Your task to perform on an android device: Set the phone to "Do not disturb". Image 0: 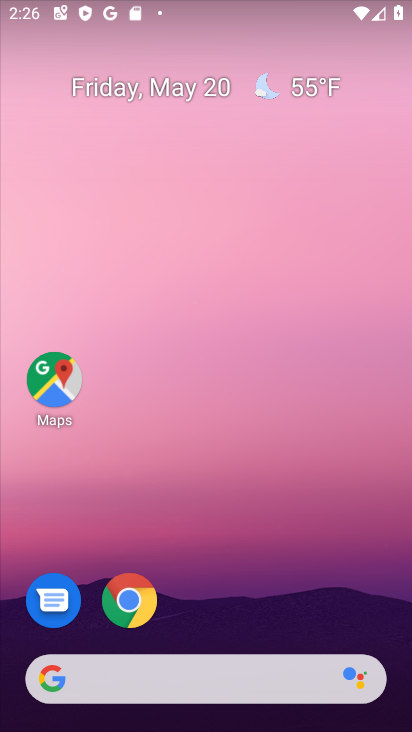
Step 0: drag from (245, 633) to (251, 95)
Your task to perform on an android device: Set the phone to "Do not disturb". Image 1: 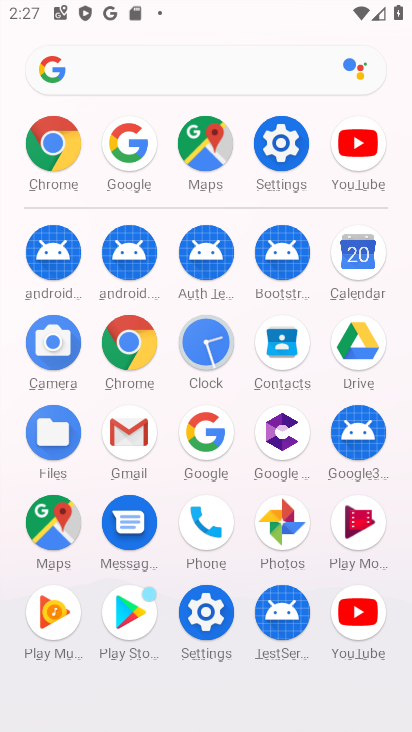
Step 1: drag from (282, 8) to (243, 473)
Your task to perform on an android device: Set the phone to "Do not disturb". Image 2: 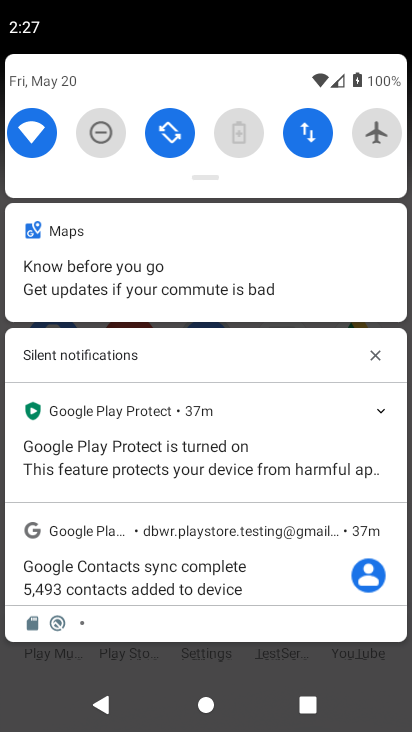
Step 2: drag from (214, 181) to (214, 547)
Your task to perform on an android device: Set the phone to "Do not disturb". Image 3: 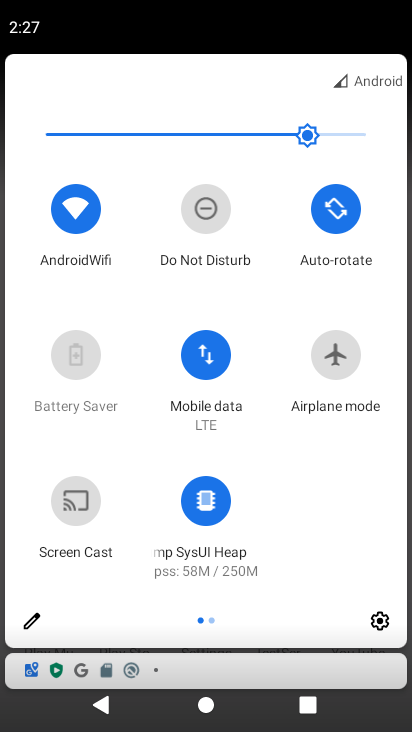
Step 3: drag from (292, 358) to (24, 334)
Your task to perform on an android device: Set the phone to "Do not disturb". Image 4: 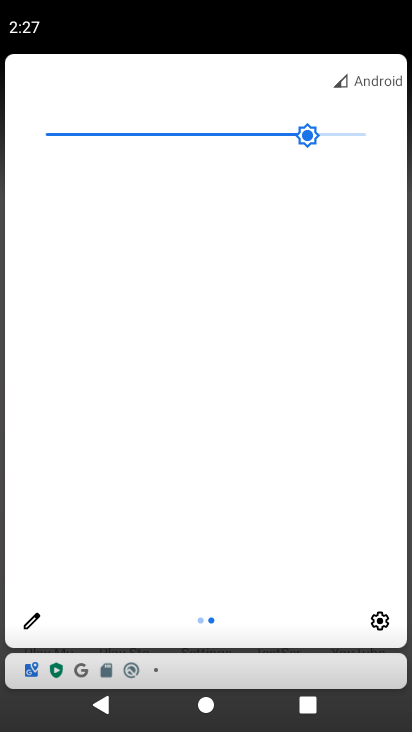
Step 4: drag from (317, 76) to (259, 406)
Your task to perform on an android device: Set the phone to "Do not disturb". Image 5: 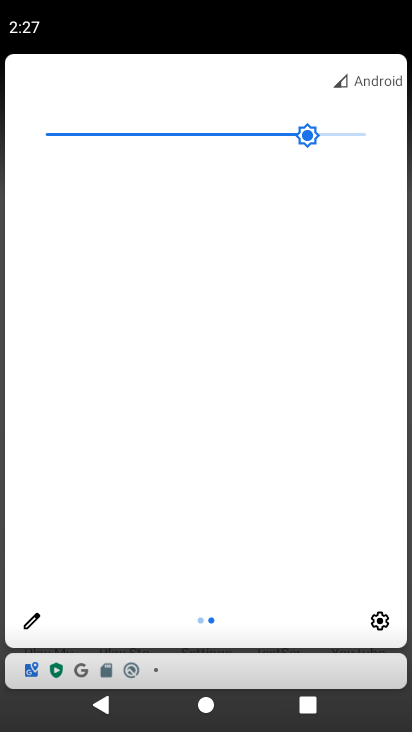
Step 5: drag from (230, 410) to (406, 431)
Your task to perform on an android device: Set the phone to "Do not disturb". Image 6: 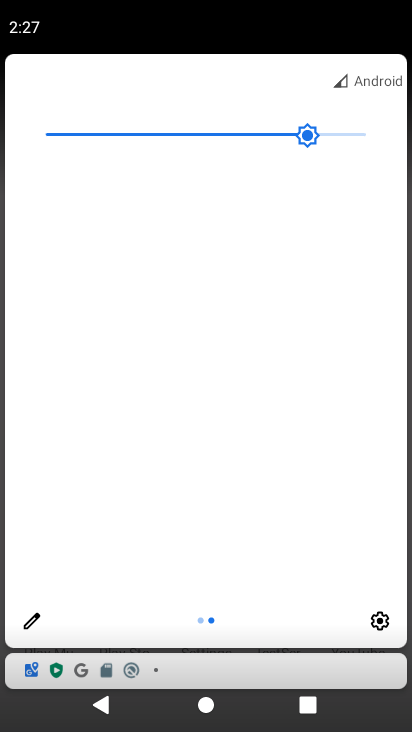
Step 6: drag from (165, 443) to (407, 465)
Your task to perform on an android device: Set the phone to "Do not disturb". Image 7: 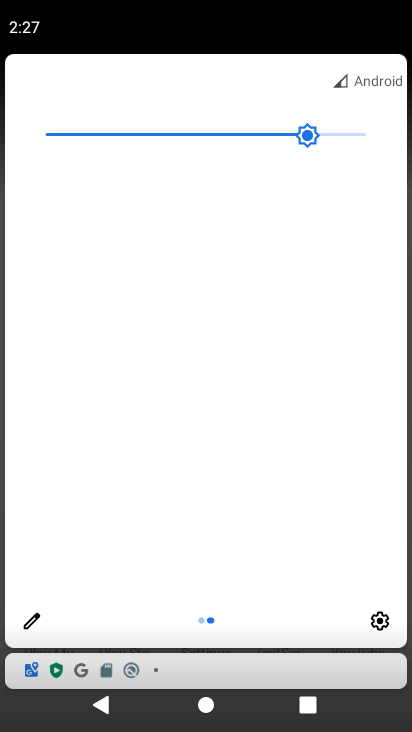
Step 7: drag from (164, 459) to (356, 477)
Your task to perform on an android device: Set the phone to "Do not disturb". Image 8: 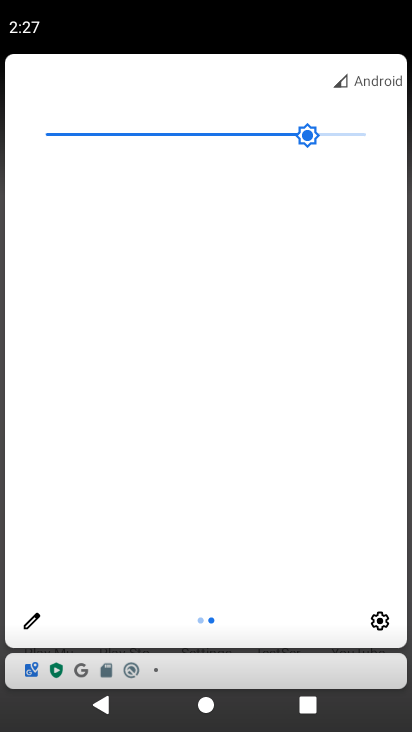
Step 8: drag from (61, 467) to (394, 479)
Your task to perform on an android device: Set the phone to "Do not disturb". Image 9: 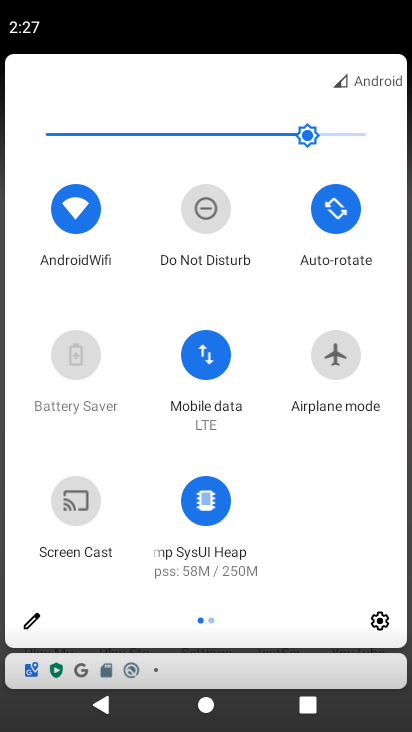
Step 9: drag from (112, 448) to (193, 437)
Your task to perform on an android device: Set the phone to "Do not disturb". Image 10: 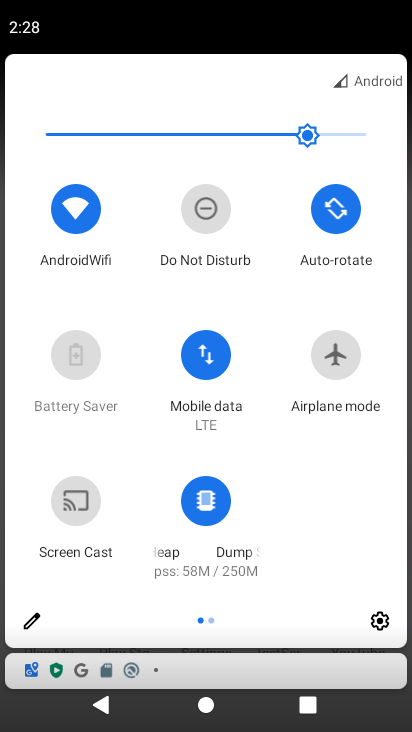
Step 10: click (219, 214)
Your task to perform on an android device: Set the phone to "Do not disturb". Image 11: 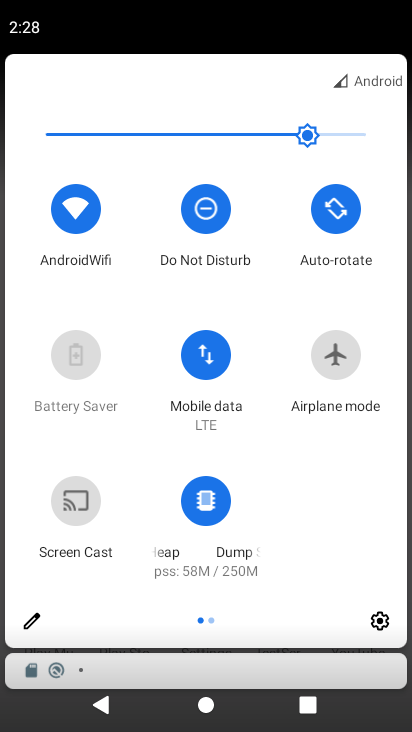
Step 11: task complete